Your task to perform on an android device: When is my next meeting? Image 0: 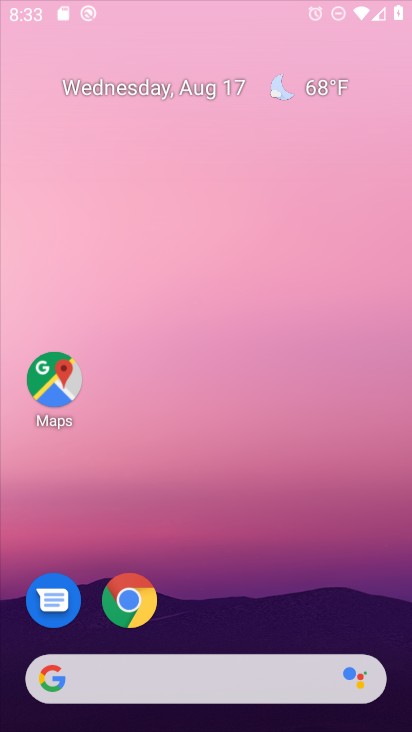
Step 0: press home button
Your task to perform on an android device: When is my next meeting? Image 1: 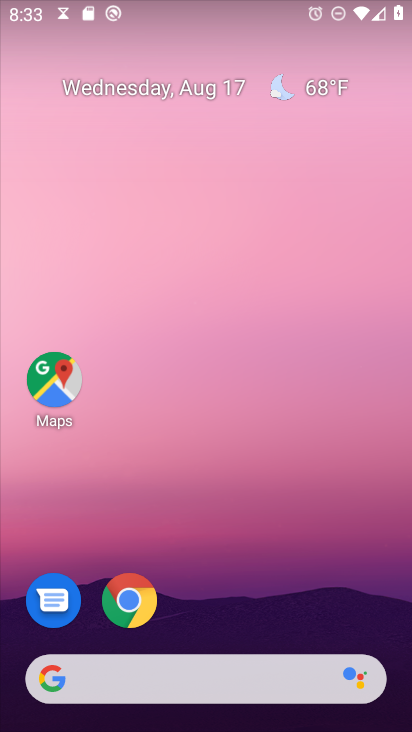
Step 1: drag from (245, 587) to (208, 143)
Your task to perform on an android device: When is my next meeting? Image 2: 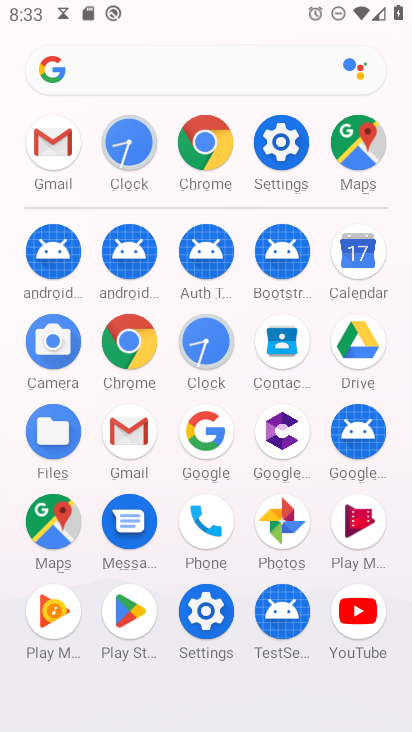
Step 2: click (362, 258)
Your task to perform on an android device: When is my next meeting? Image 3: 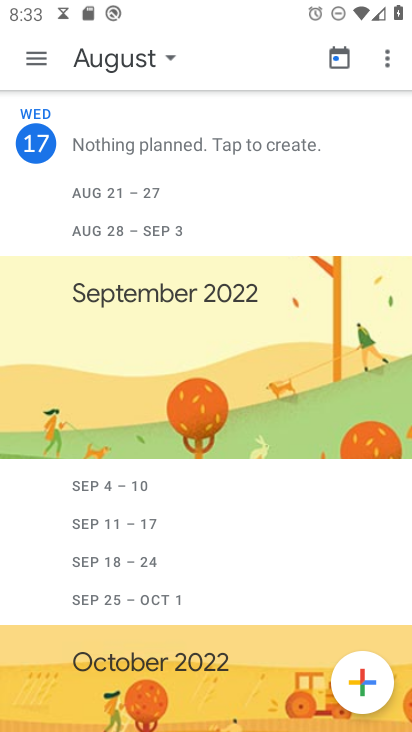
Step 3: click (37, 51)
Your task to perform on an android device: When is my next meeting? Image 4: 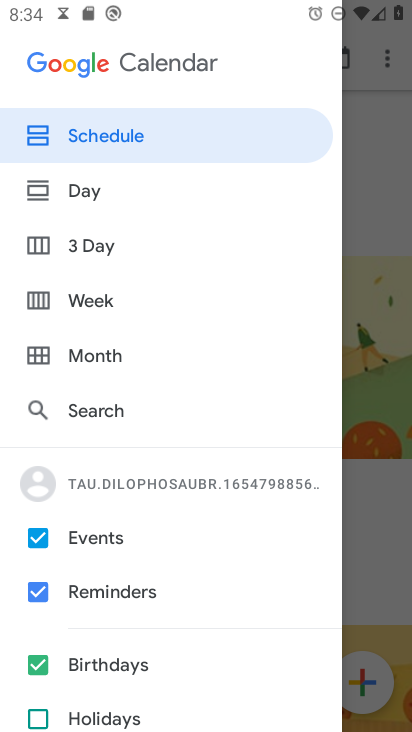
Step 4: click (104, 118)
Your task to perform on an android device: When is my next meeting? Image 5: 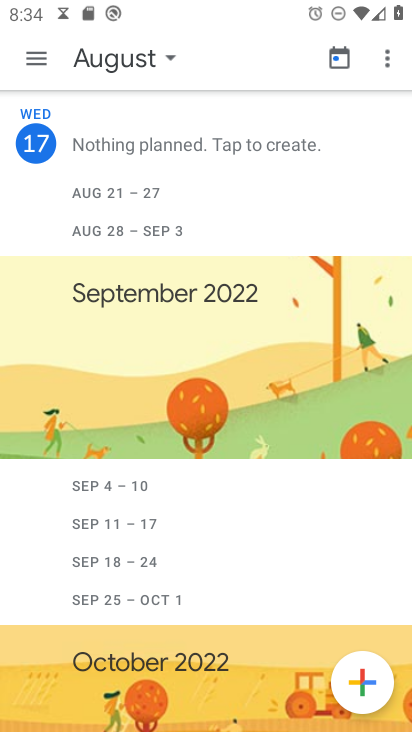
Step 5: task complete